Your task to perform on an android device: turn notification dots off Image 0: 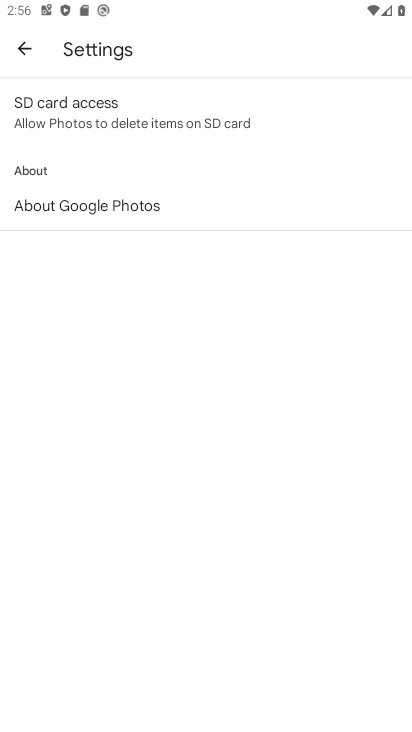
Step 0: press home button
Your task to perform on an android device: turn notification dots off Image 1: 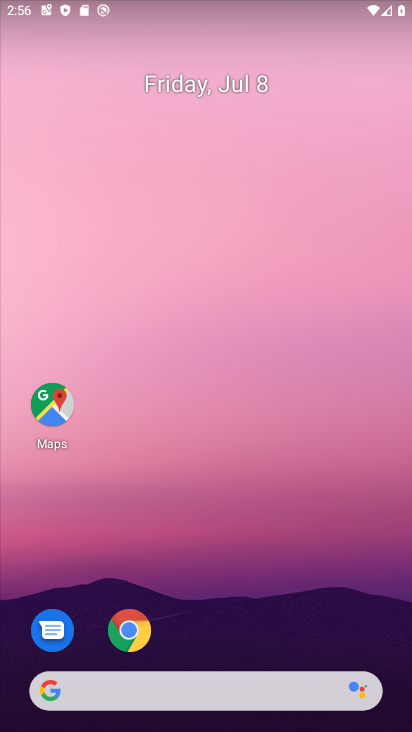
Step 1: drag from (270, 615) to (286, 183)
Your task to perform on an android device: turn notification dots off Image 2: 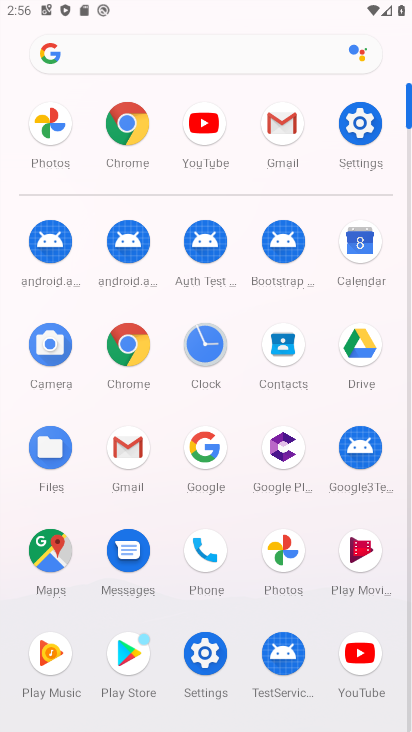
Step 2: click (371, 125)
Your task to perform on an android device: turn notification dots off Image 3: 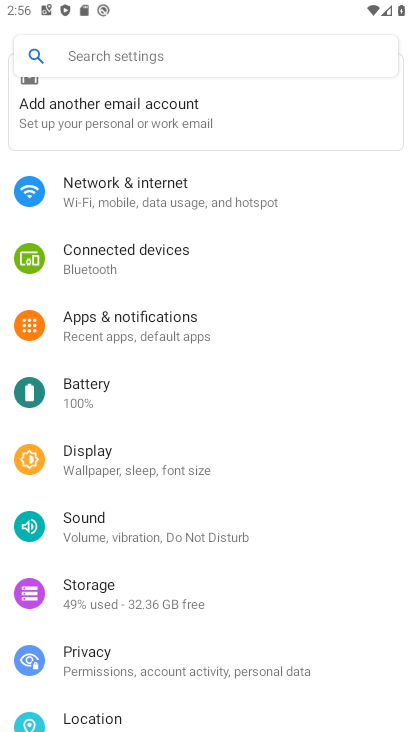
Step 3: drag from (215, 612) to (176, 2)
Your task to perform on an android device: turn notification dots off Image 4: 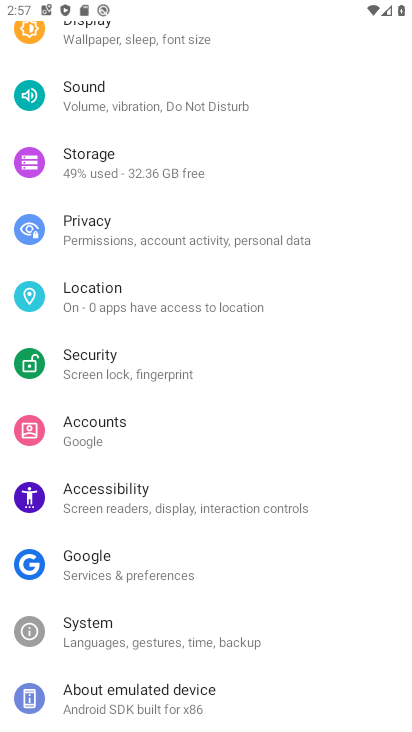
Step 4: drag from (225, 572) to (224, 409)
Your task to perform on an android device: turn notification dots off Image 5: 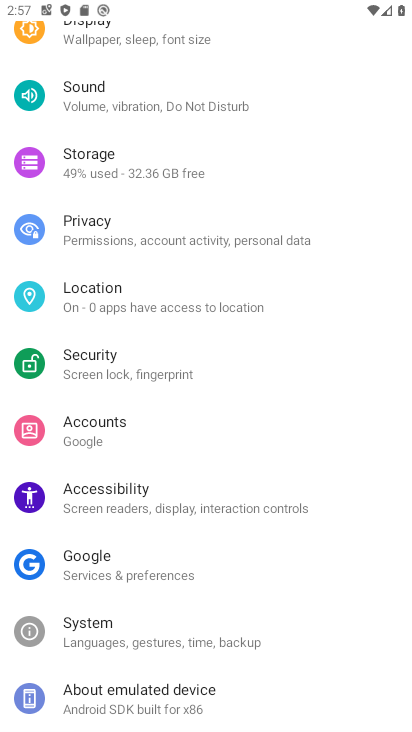
Step 5: drag from (224, 409) to (217, 370)
Your task to perform on an android device: turn notification dots off Image 6: 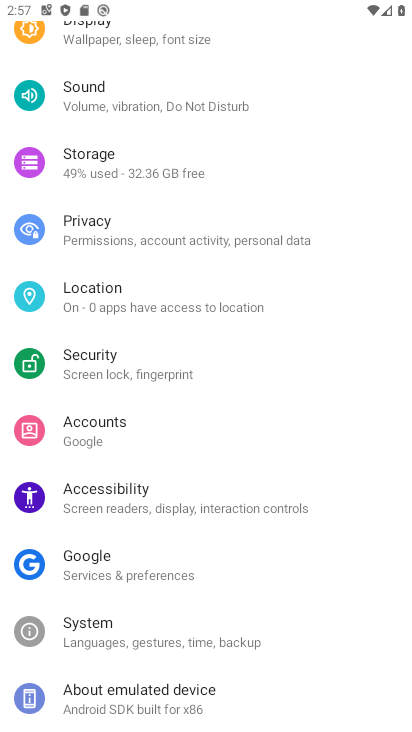
Step 6: drag from (135, 228) to (141, 490)
Your task to perform on an android device: turn notification dots off Image 7: 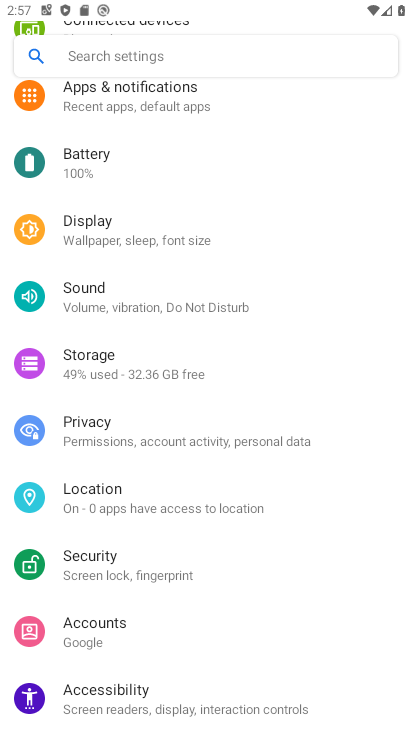
Step 7: click (121, 108)
Your task to perform on an android device: turn notification dots off Image 8: 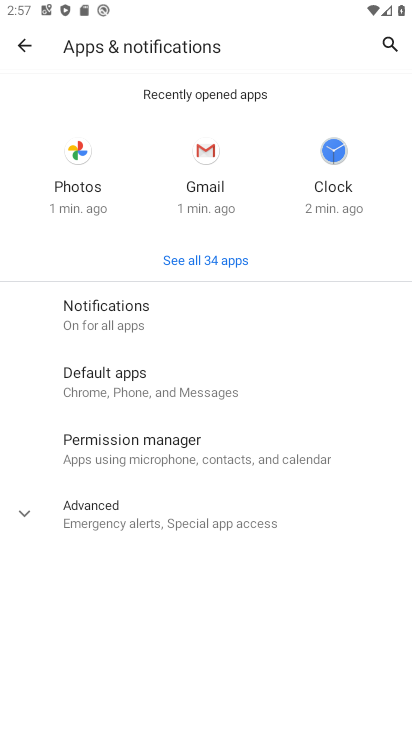
Step 8: task complete